Your task to perform on an android device: Is it going to rain this weekend? Image 0: 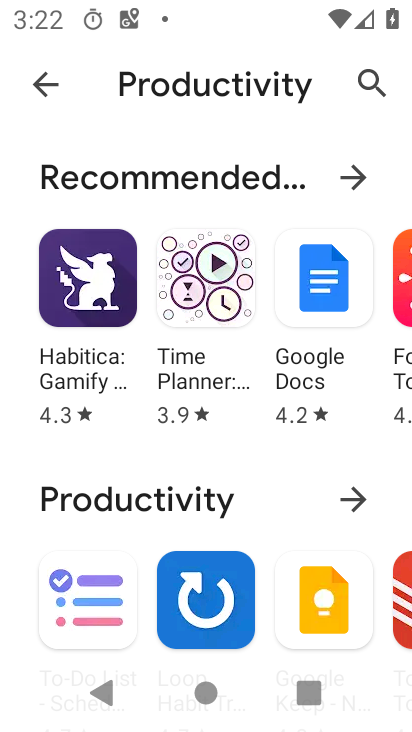
Step 0: press home button
Your task to perform on an android device: Is it going to rain this weekend? Image 1: 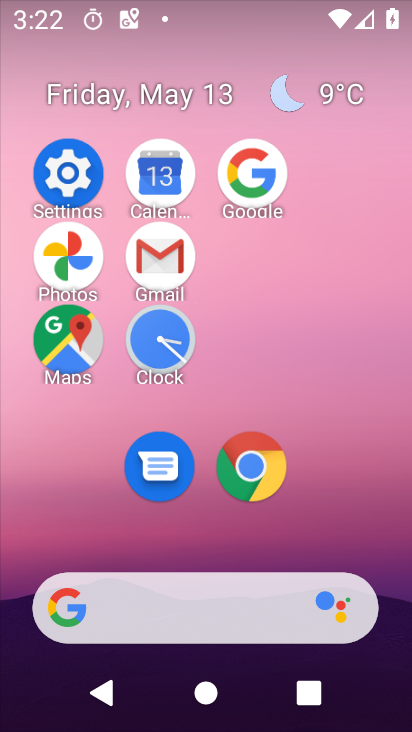
Step 1: click (256, 189)
Your task to perform on an android device: Is it going to rain this weekend? Image 2: 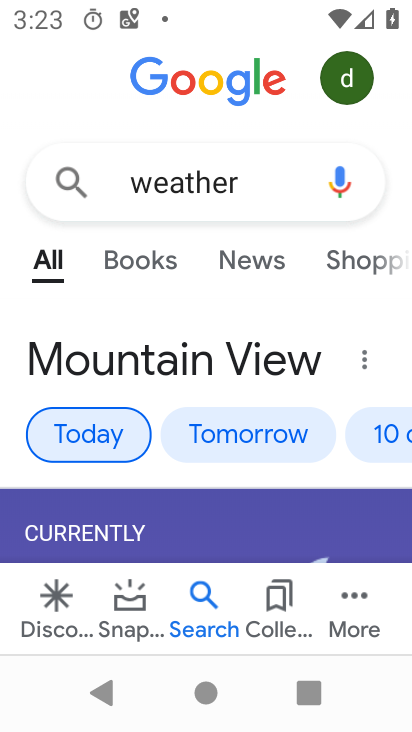
Step 2: click (231, 447)
Your task to perform on an android device: Is it going to rain this weekend? Image 3: 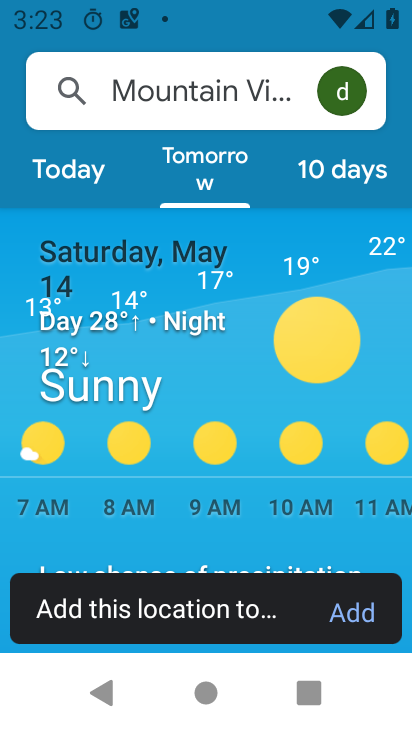
Step 3: task complete